Your task to perform on an android device: What is the recent news? Image 0: 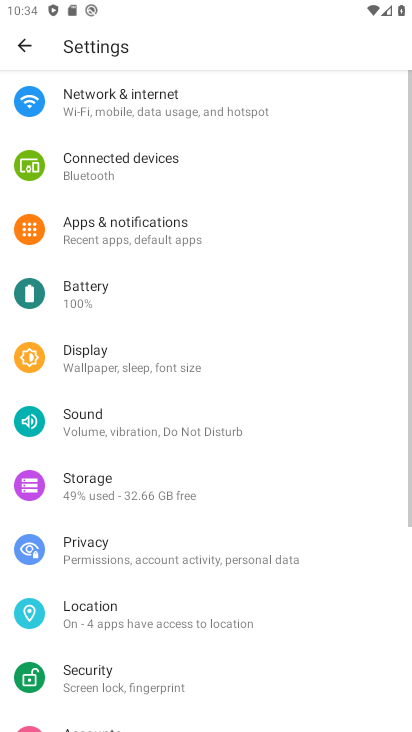
Step 0: press home button
Your task to perform on an android device: What is the recent news? Image 1: 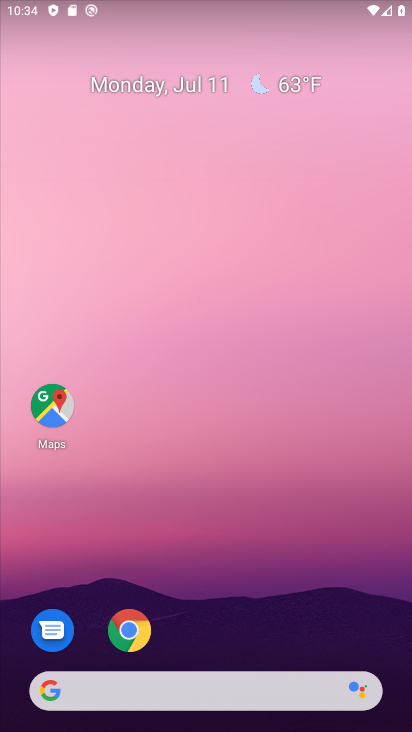
Step 1: task complete